Your task to perform on an android device: set an alarm Image 0: 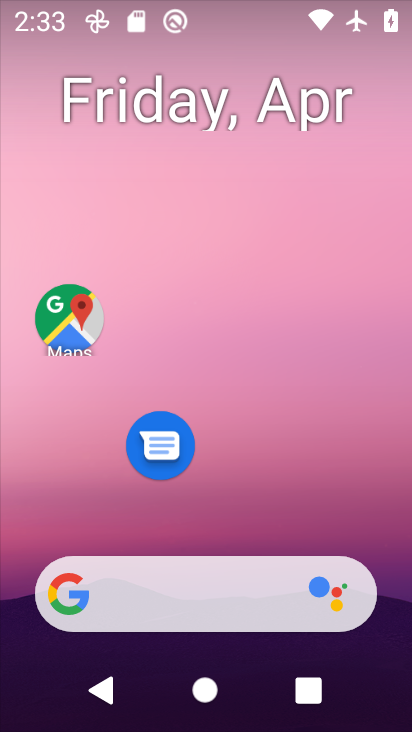
Step 0: drag from (256, 504) to (287, 138)
Your task to perform on an android device: set an alarm Image 1: 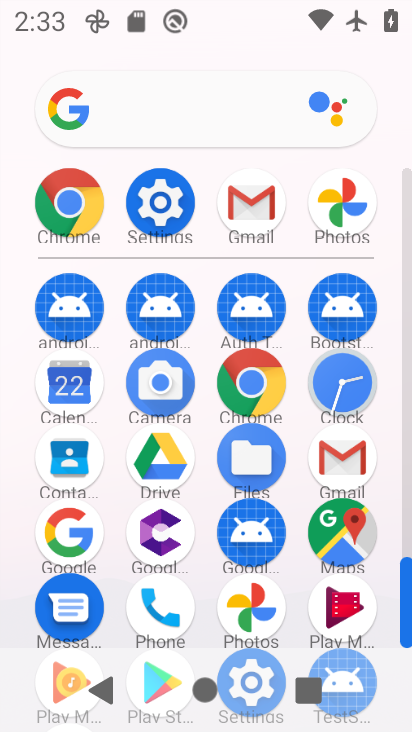
Step 1: click (348, 371)
Your task to perform on an android device: set an alarm Image 2: 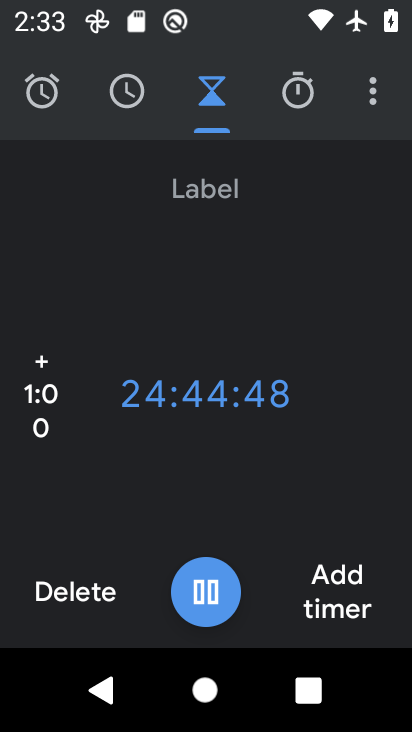
Step 2: click (330, 611)
Your task to perform on an android device: set an alarm Image 3: 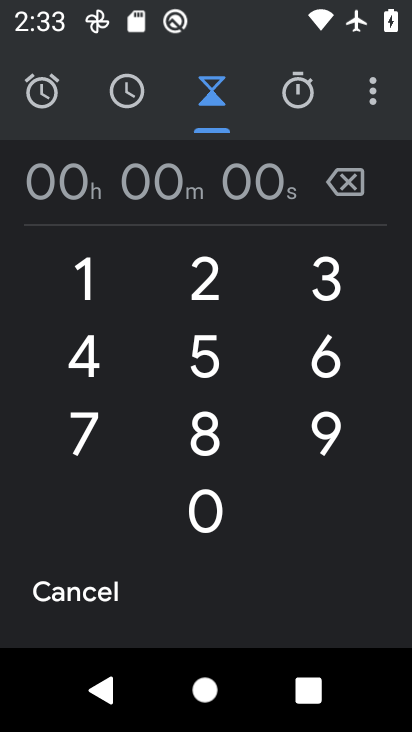
Step 3: click (88, 436)
Your task to perform on an android device: set an alarm Image 4: 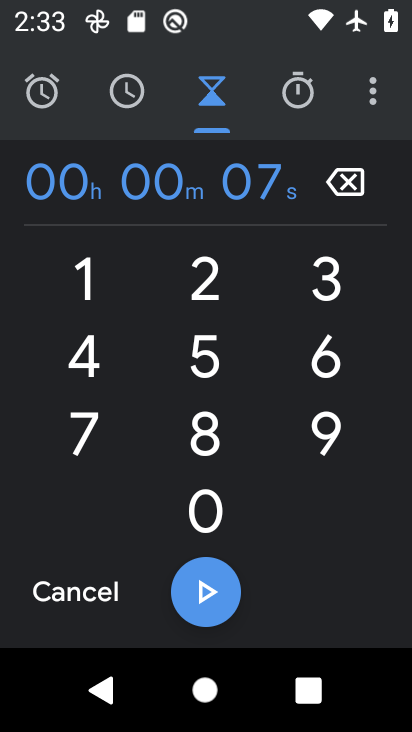
Step 4: click (320, 446)
Your task to perform on an android device: set an alarm Image 5: 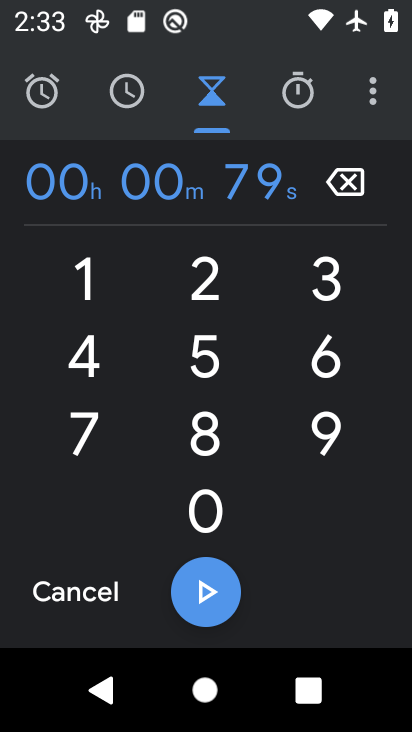
Step 5: click (312, 255)
Your task to perform on an android device: set an alarm Image 6: 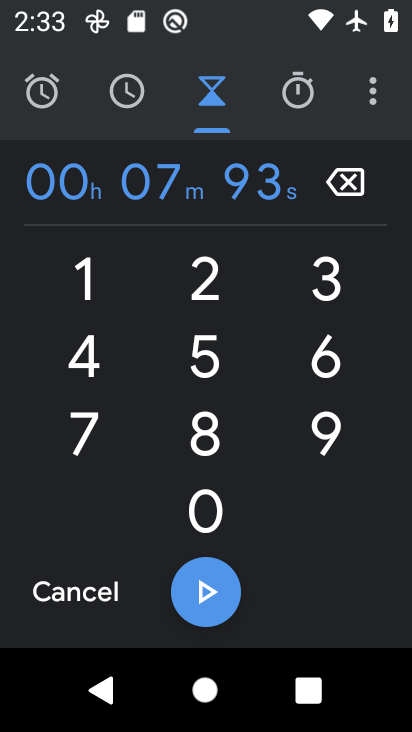
Step 6: click (88, 277)
Your task to perform on an android device: set an alarm Image 7: 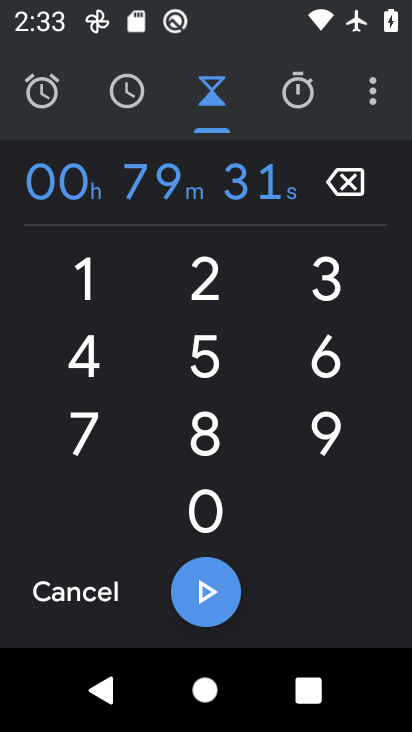
Step 7: click (223, 371)
Your task to perform on an android device: set an alarm Image 8: 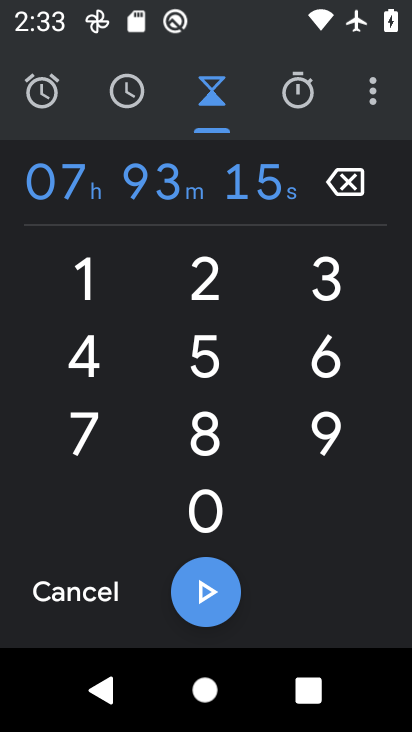
Step 8: click (229, 495)
Your task to perform on an android device: set an alarm Image 9: 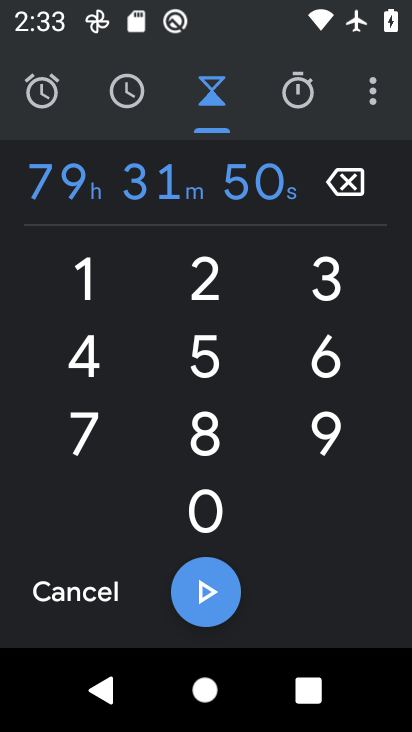
Step 9: click (206, 596)
Your task to perform on an android device: set an alarm Image 10: 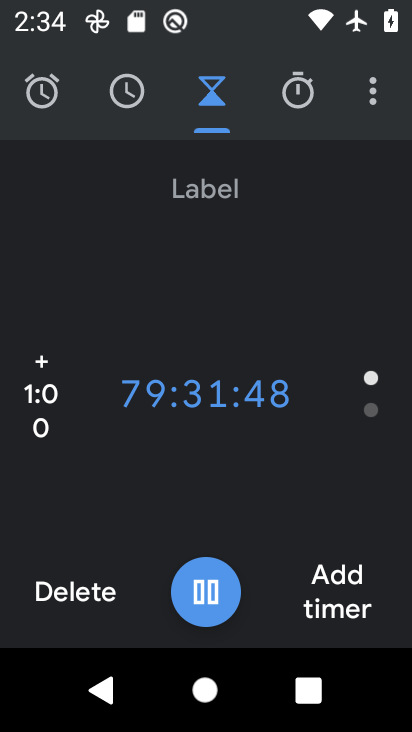
Step 10: task complete